Your task to perform on an android device: turn on the 24-hour format for clock Image 0: 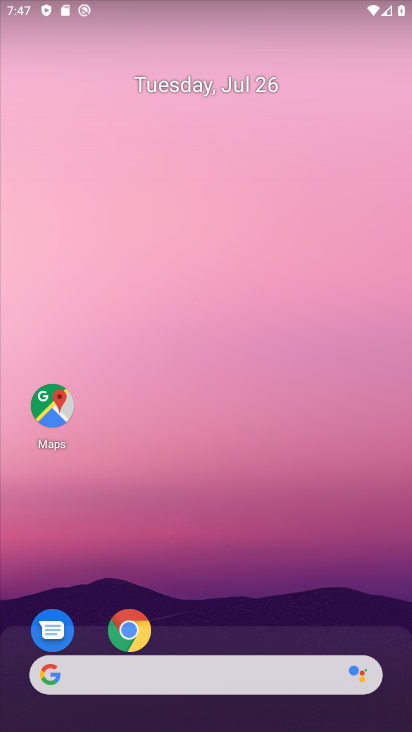
Step 0: drag from (348, 614) to (362, 77)
Your task to perform on an android device: turn on the 24-hour format for clock Image 1: 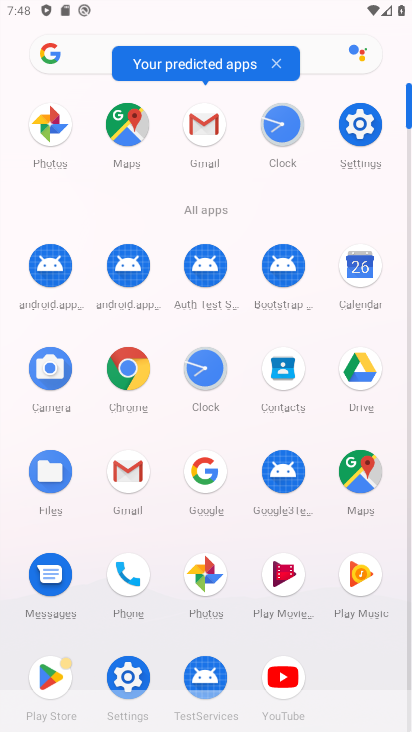
Step 1: click (201, 375)
Your task to perform on an android device: turn on the 24-hour format for clock Image 2: 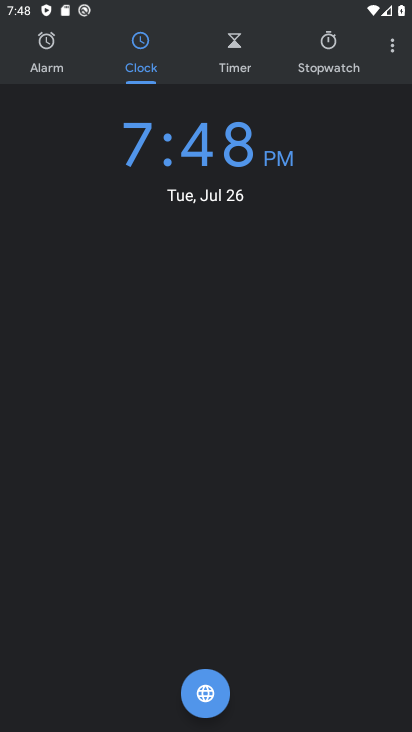
Step 2: click (389, 51)
Your task to perform on an android device: turn on the 24-hour format for clock Image 3: 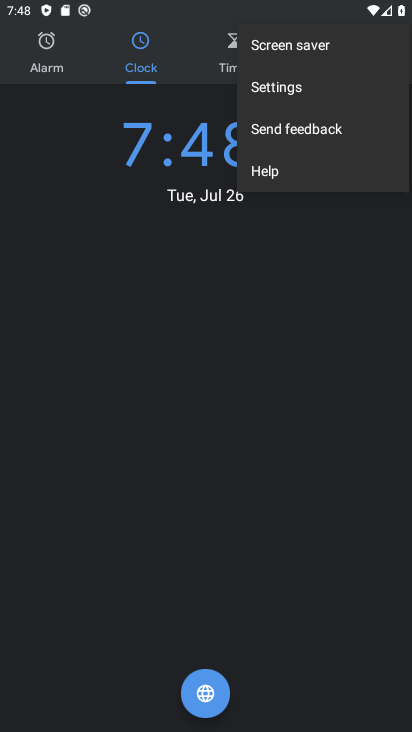
Step 3: click (321, 90)
Your task to perform on an android device: turn on the 24-hour format for clock Image 4: 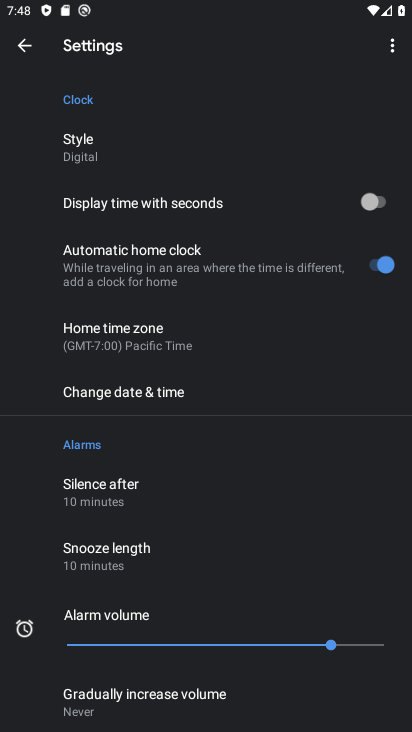
Step 4: drag from (334, 479) to (330, 402)
Your task to perform on an android device: turn on the 24-hour format for clock Image 5: 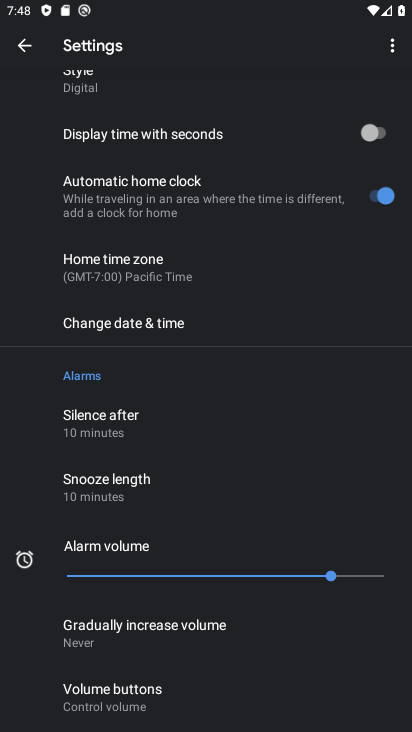
Step 5: click (273, 330)
Your task to perform on an android device: turn on the 24-hour format for clock Image 6: 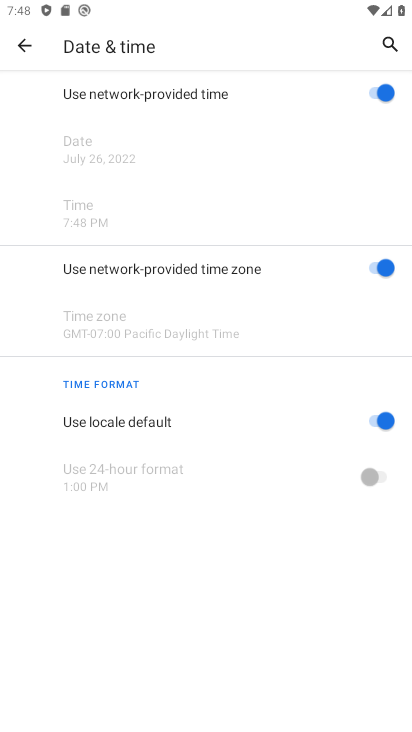
Step 6: click (385, 417)
Your task to perform on an android device: turn on the 24-hour format for clock Image 7: 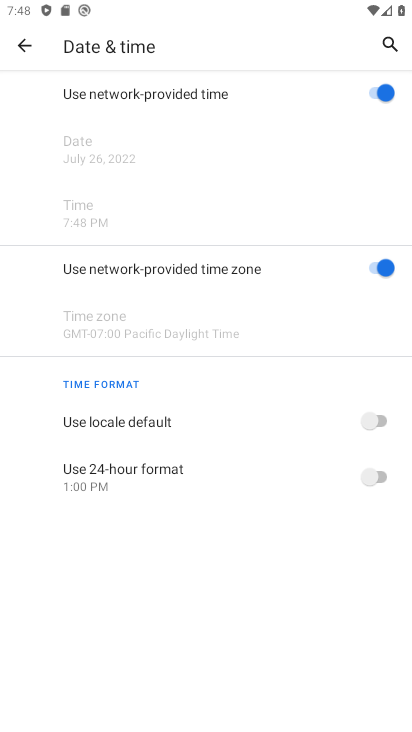
Step 7: click (369, 479)
Your task to perform on an android device: turn on the 24-hour format for clock Image 8: 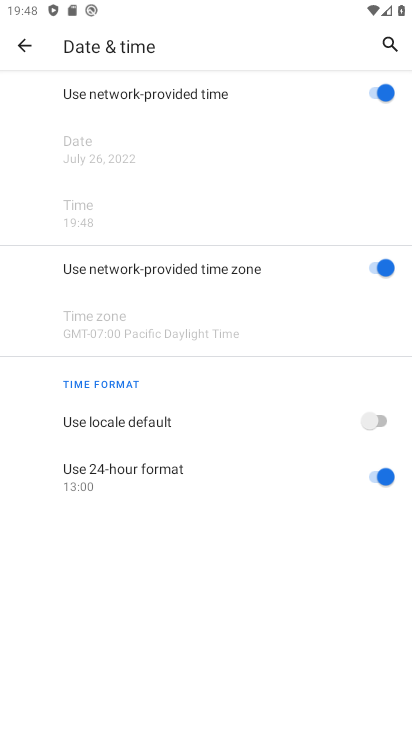
Step 8: task complete